Your task to perform on an android device: Open the calendar and show me this week's events Image 0: 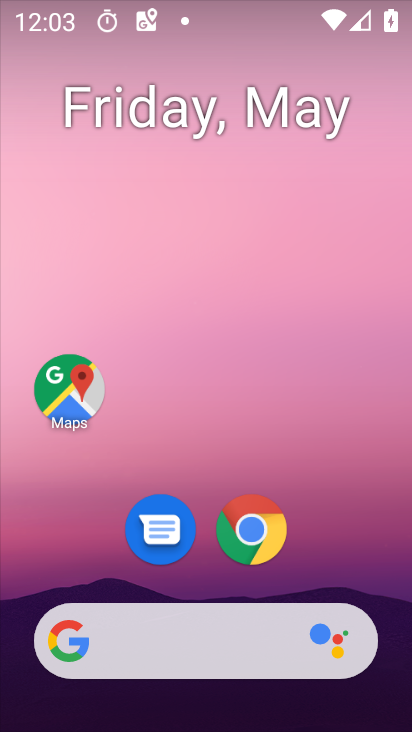
Step 0: drag from (227, 246) to (239, 174)
Your task to perform on an android device: Open the calendar and show me this week's events Image 1: 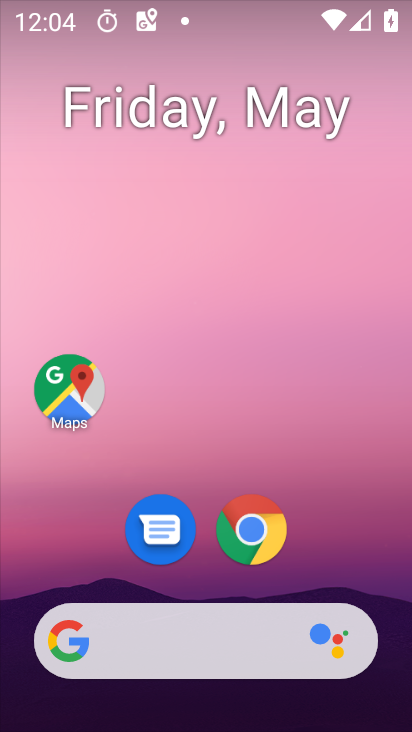
Step 1: drag from (198, 548) to (170, 94)
Your task to perform on an android device: Open the calendar and show me this week's events Image 2: 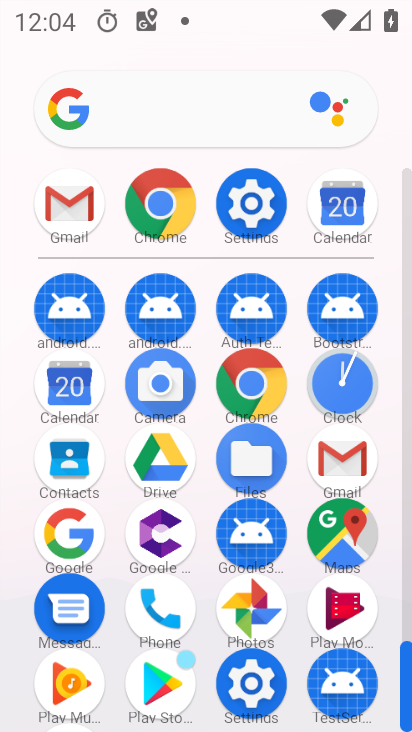
Step 2: click (65, 373)
Your task to perform on an android device: Open the calendar and show me this week's events Image 3: 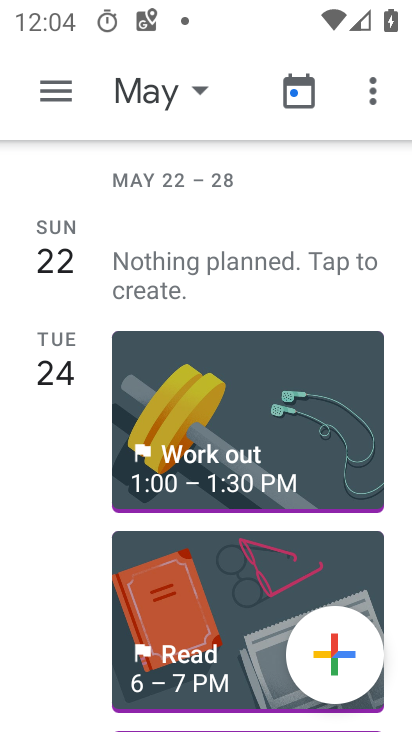
Step 3: click (184, 96)
Your task to perform on an android device: Open the calendar and show me this week's events Image 4: 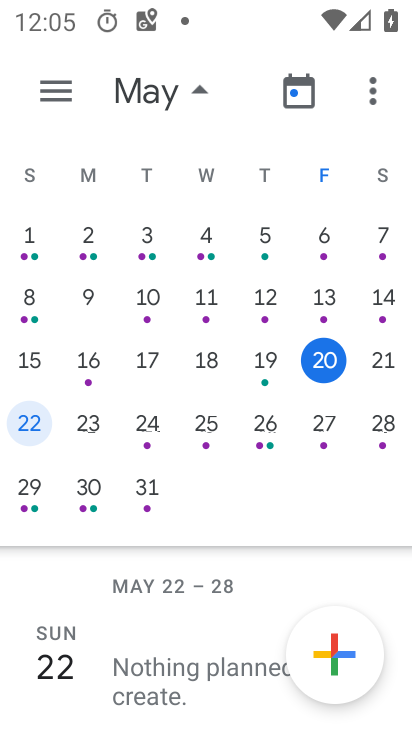
Step 4: click (36, 427)
Your task to perform on an android device: Open the calendar and show me this week's events Image 5: 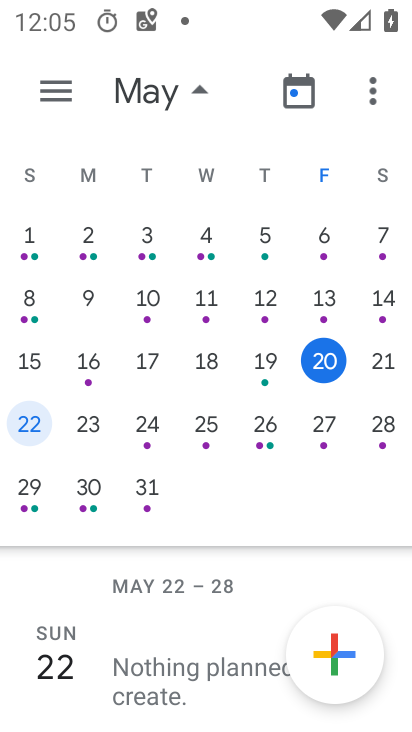
Step 5: task complete